Your task to perform on an android device: Open Youtube and go to the subscriptions tab Image 0: 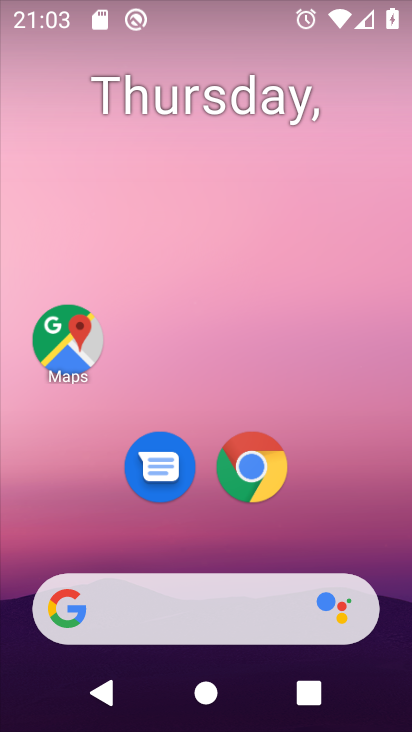
Step 0: drag from (314, 523) to (260, 89)
Your task to perform on an android device: Open Youtube and go to the subscriptions tab Image 1: 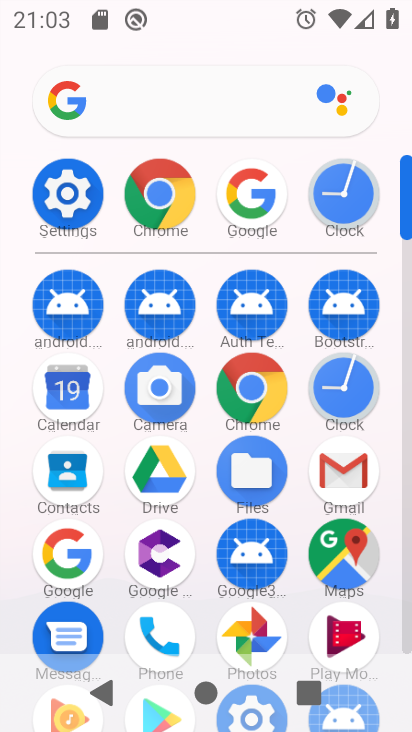
Step 1: drag from (322, 608) to (357, 322)
Your task to perform on an android device: Open Youtube and go to the subscriptions tab Image 2: 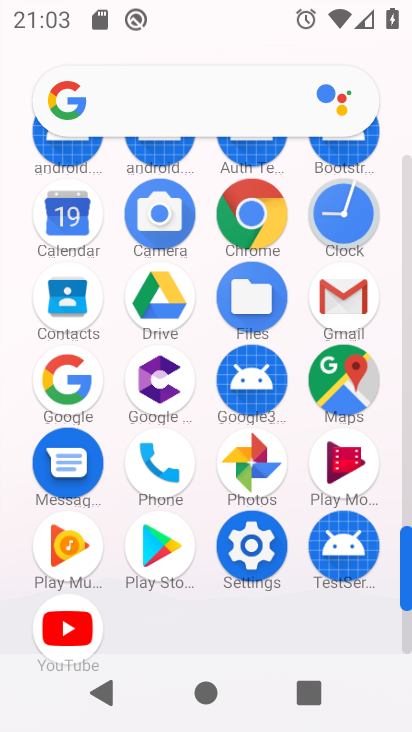
Step 2: click (75, 627)
Your task to perform on an android device: Open Youtube and go to the subscriptions tab Image 3: 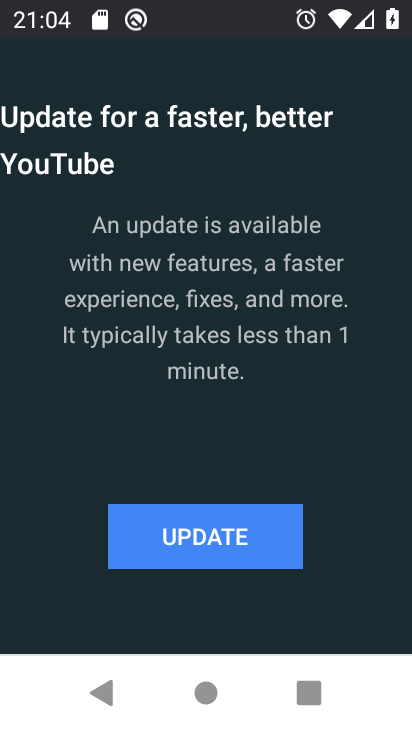
Step 3: task complete